Your task to perform on an android device: Open calendar and show me the third week of next month Image 0: 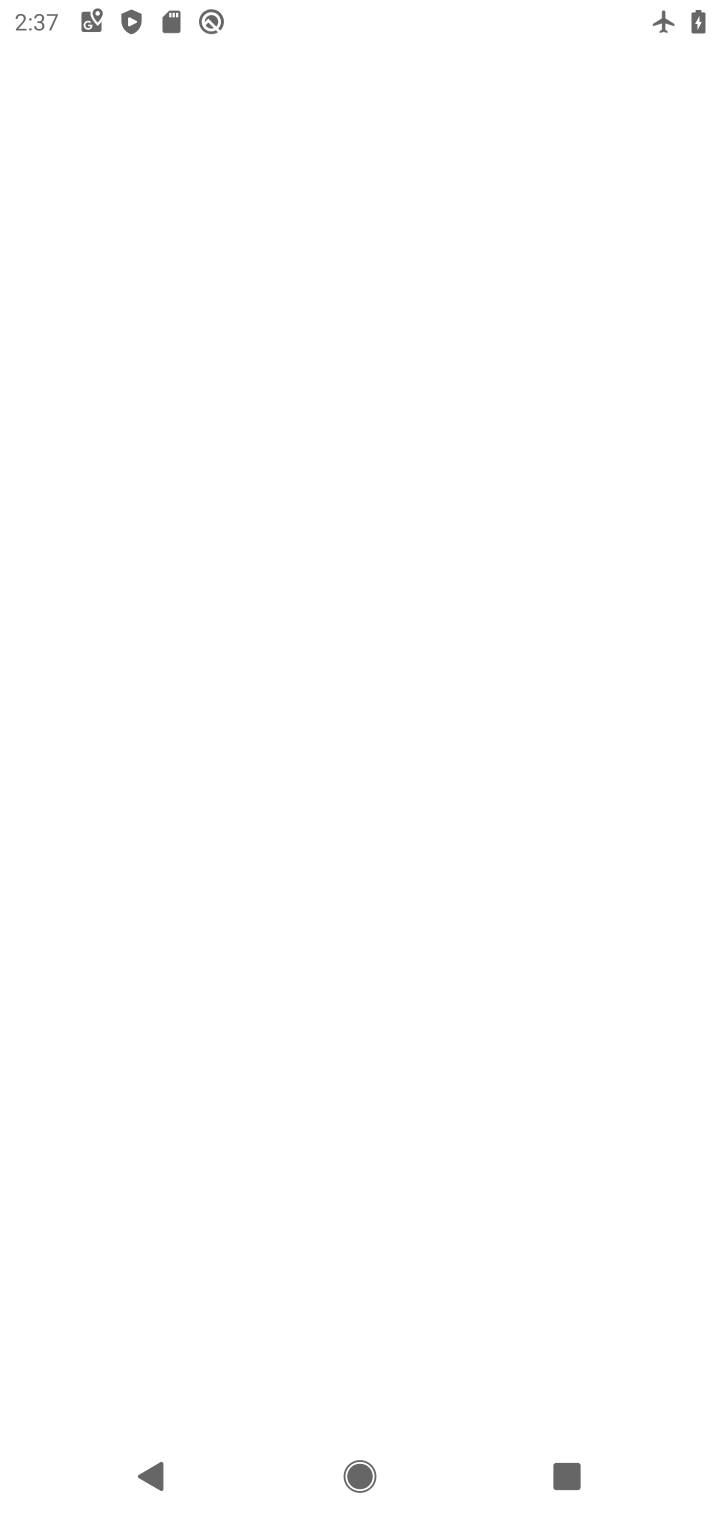
Step 0: press home button
Your task to perform on an android device: Open calendar and show me the third week of next month Image 1: 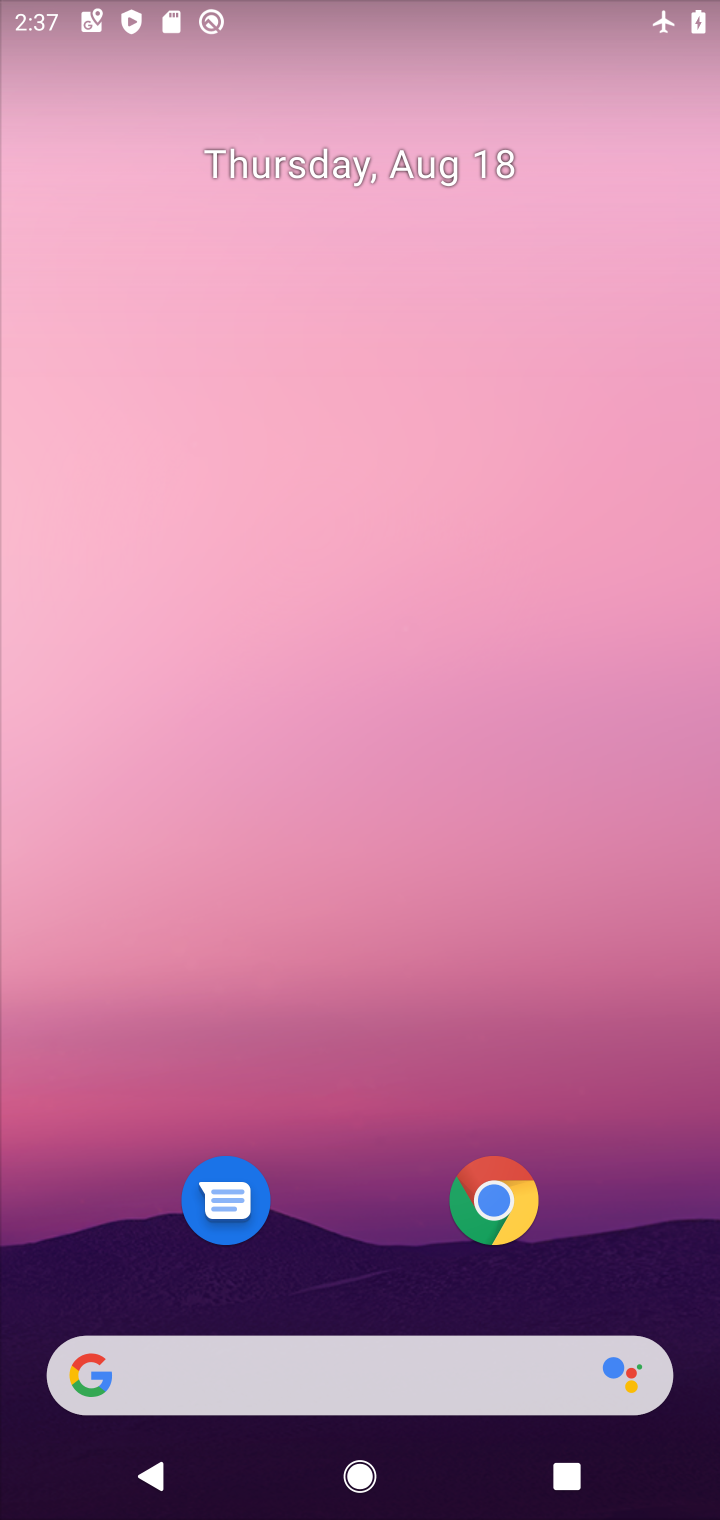
Step 1: drag from (652, 1162) to (582, 6)
Your task to perform on an android device: Open calendar and show me the third week of next month Image 2: 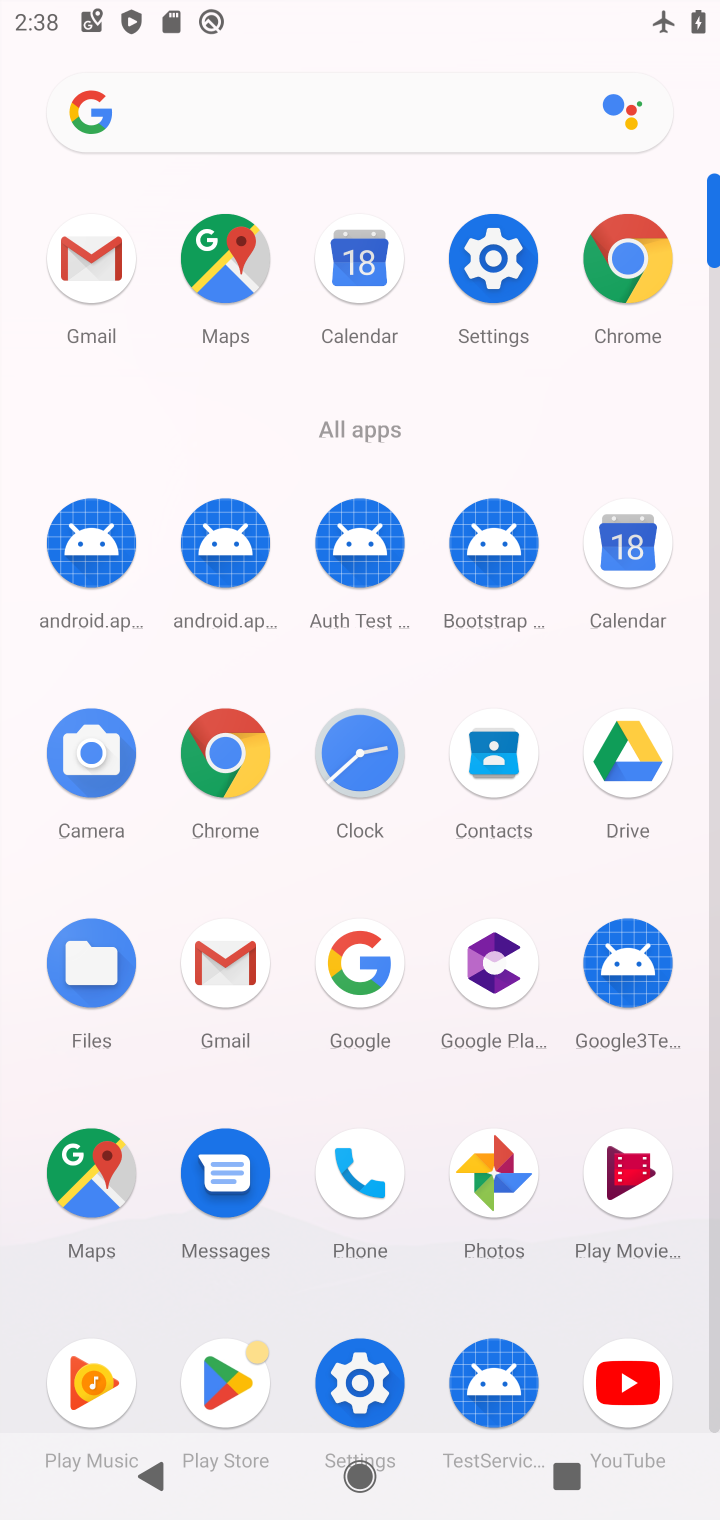
Step 2: click (604, 520)
Your task to perform on an android device: Open calendar and show me the third week of next month Image 3: 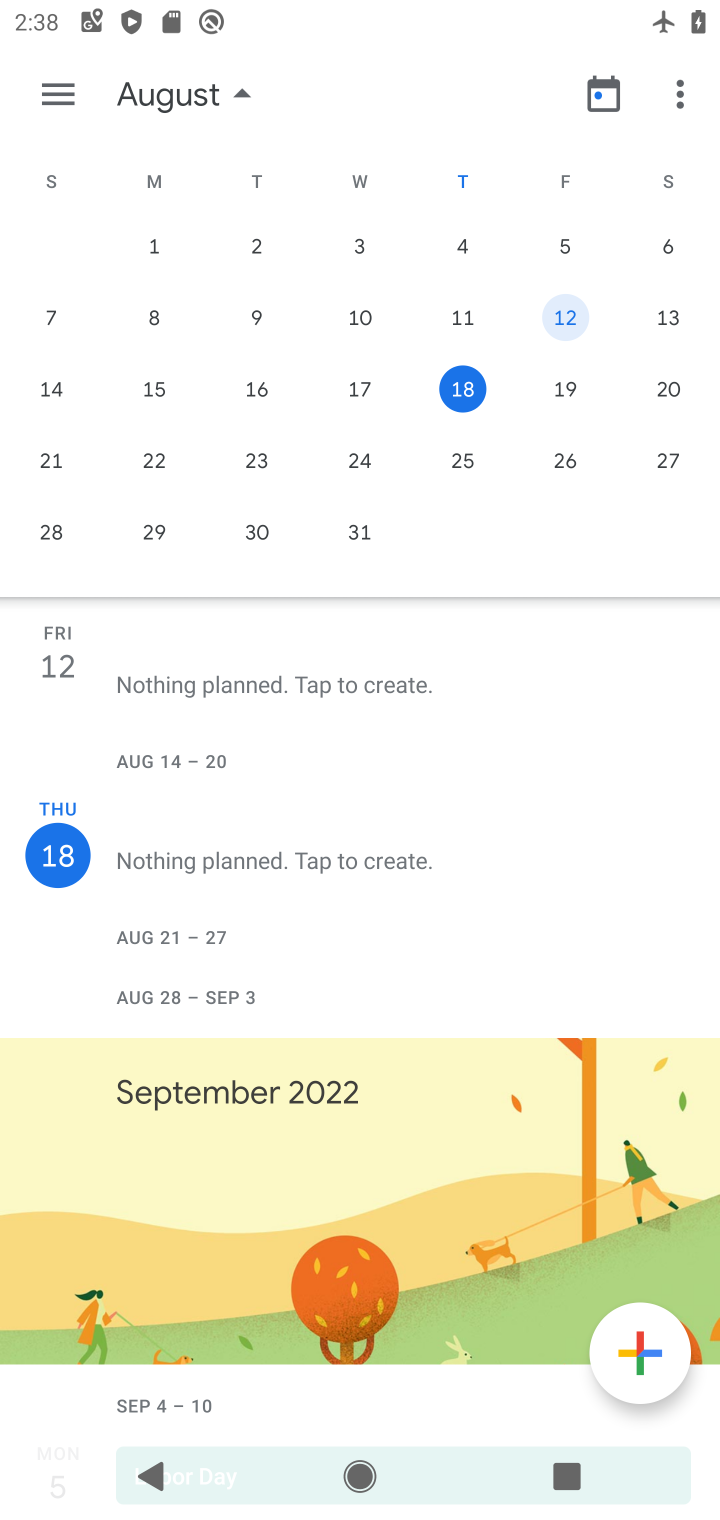
Step 3: drag from (636, 370) to (41, 362)
Your task to perform on an android device: Open calendar and show me the third week of next month Image 4: 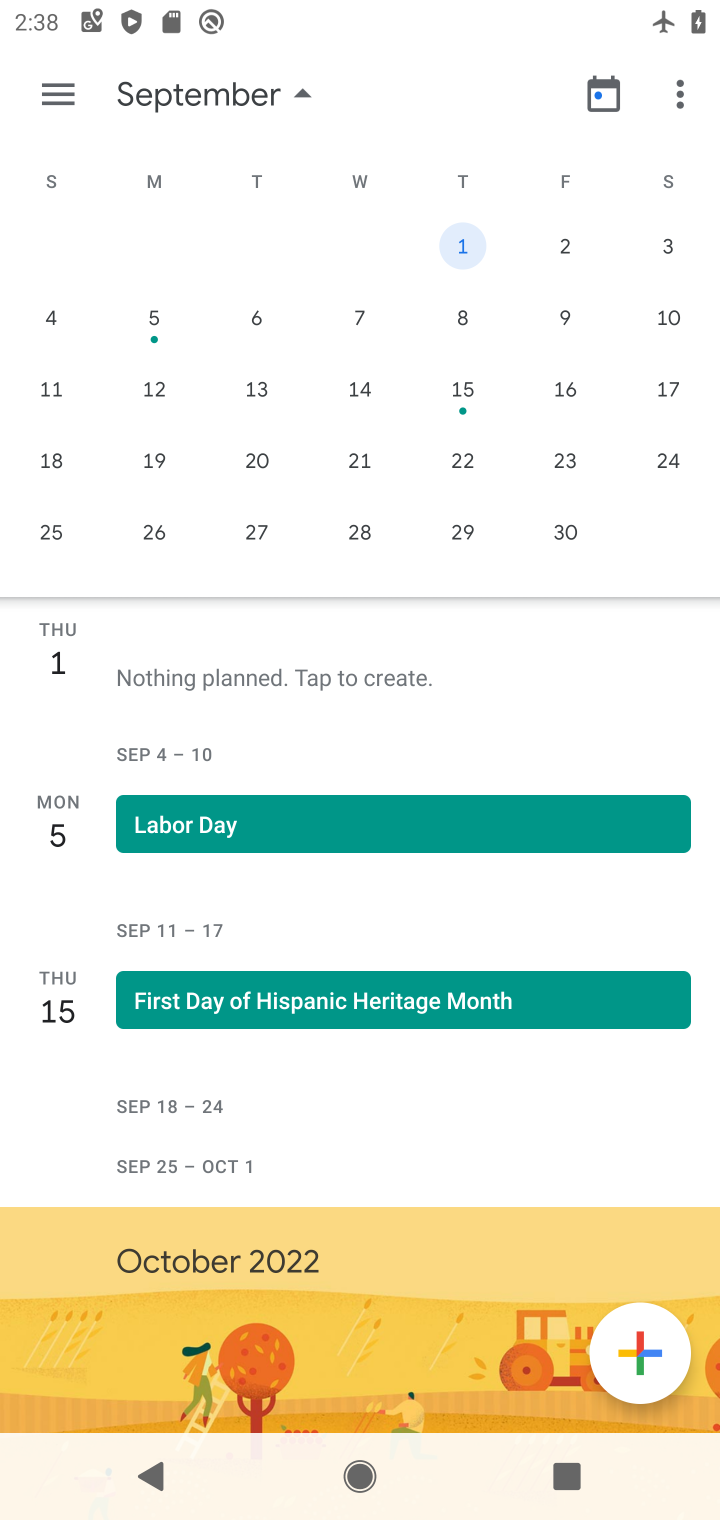
Step 4: click (468, 394)
Your task to perform on an android device: Open calendar and show me the third week of next month Image 5: 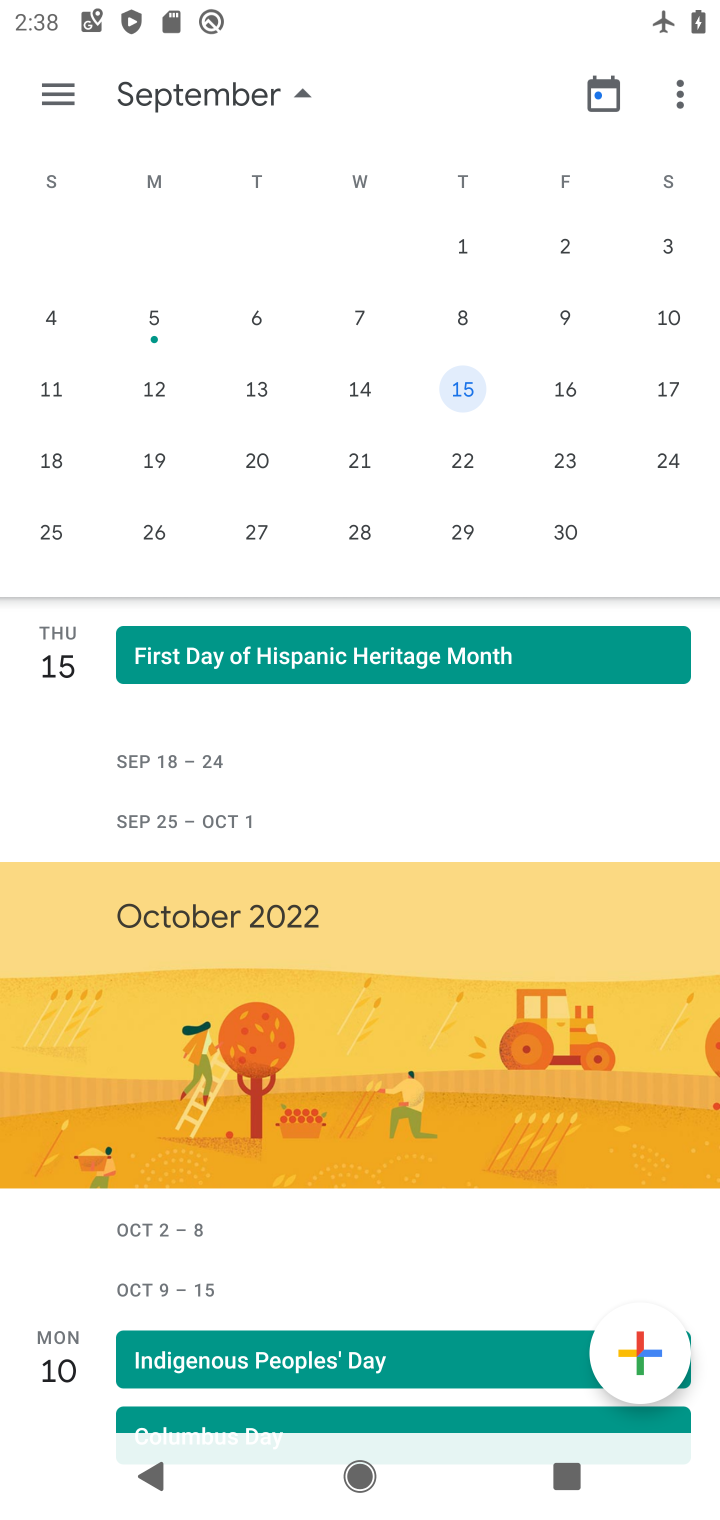
Step 5: task complete